Your task to perform on an android device: check the backup settings in the google photos Image 0: 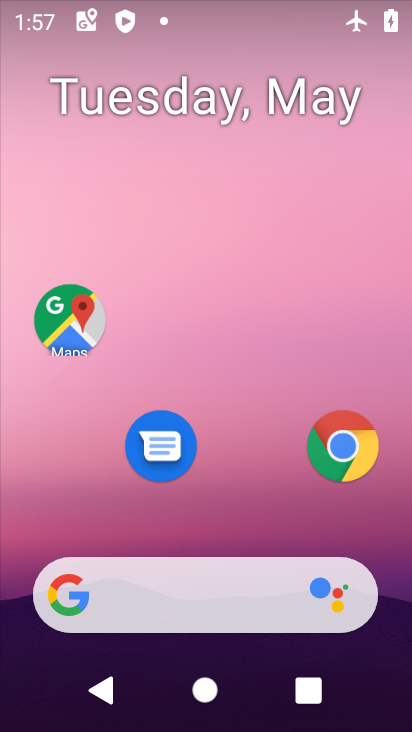
Step 0: drag from (191, 414) to (172, 44)
Your task to perform on an android device: check the backup settings in the google photos Image 1: 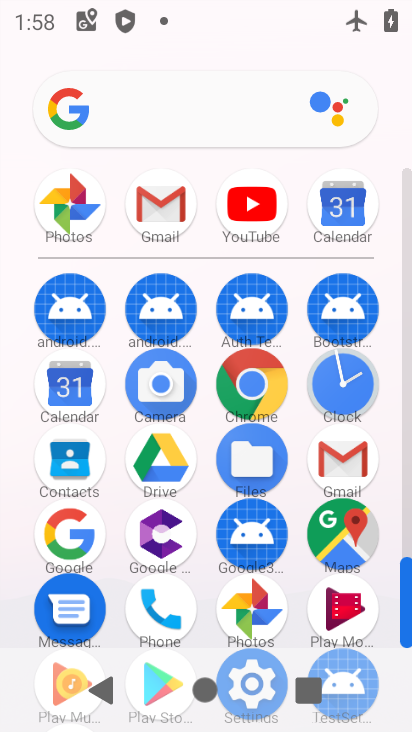
Step 1: click (260, 602)
Your task to perform on an android device: check the backup settings in the google photos Image 2: 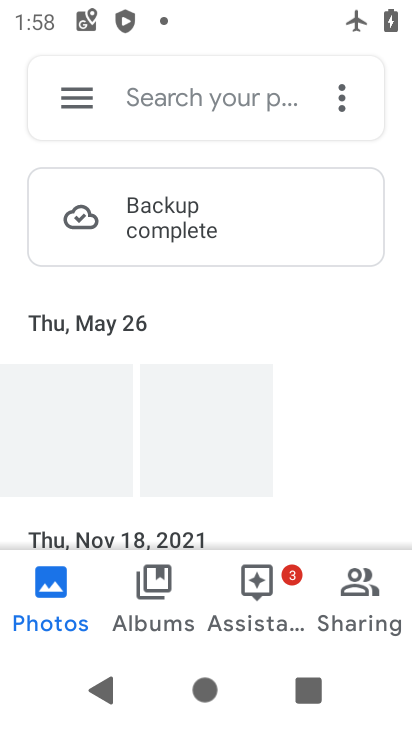
Step 2: click (61, 97)
Your task to perform on an android device: check the backup settings in the google photos Image 3: 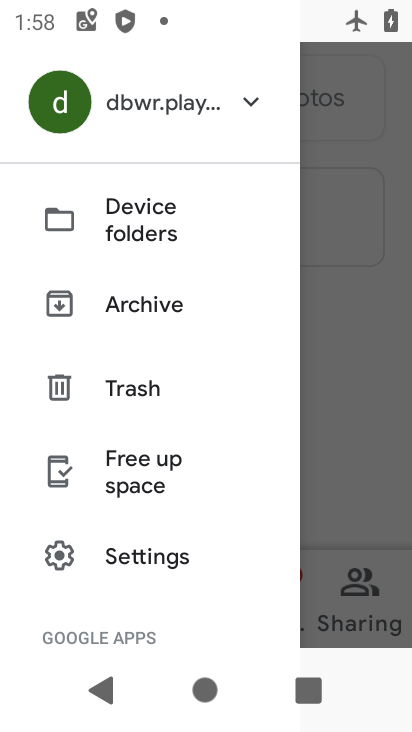
Step 3: drag from (191, 488) to (182, 120)
Your task to perform on an android device: check the backup settings in the google photos Image 4: 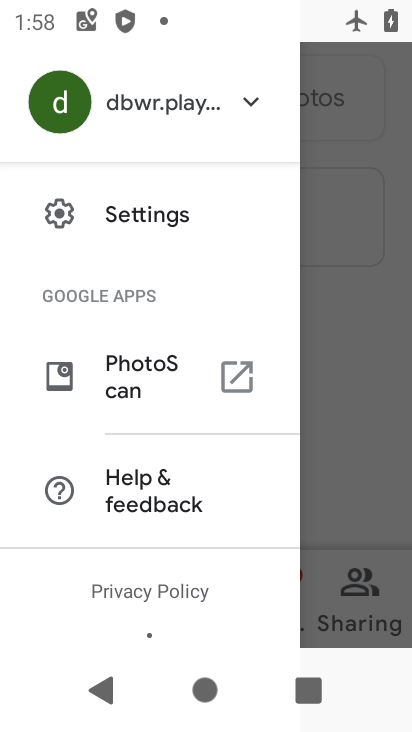
Step 4: click (150, 221)
Your task to perform on an android device: check the backup settings in the google photos Image 5: 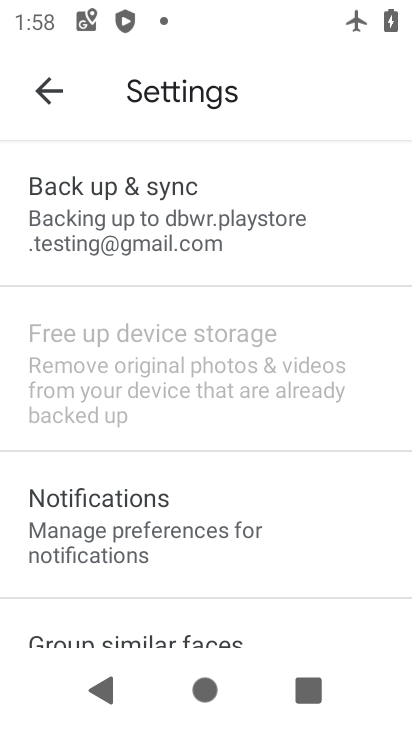
Step 5: click (150, 221)
Your task to perform on an android device: check the backup settings in the google photos Image 6: 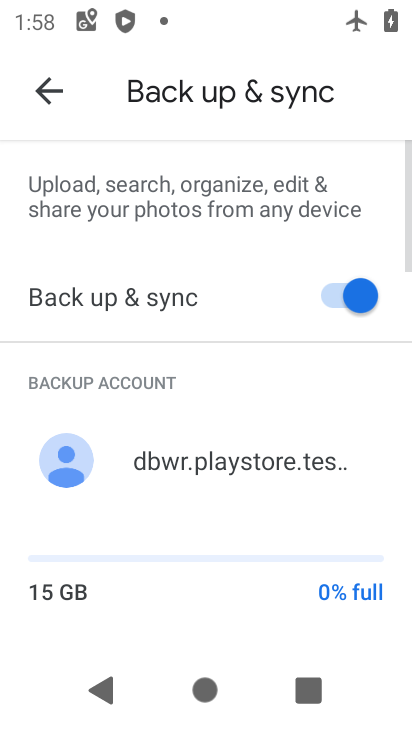
Step 6: task complete